Your task to perform on an android device: Go to Wikipedia Image 0: 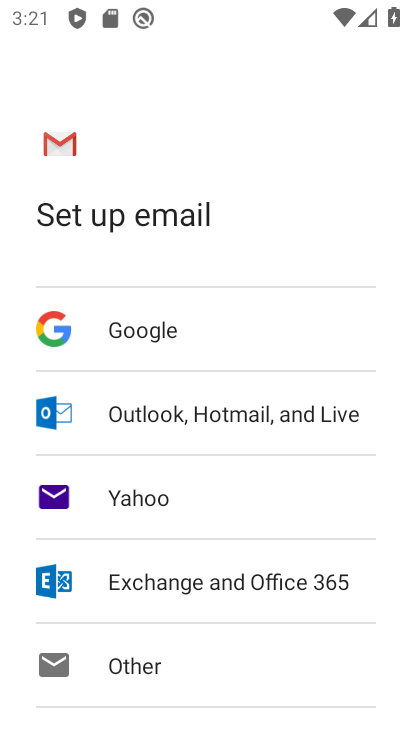
Step 0: press home button
Your task to perform on an android device: Go to Wikipedia Image 1: 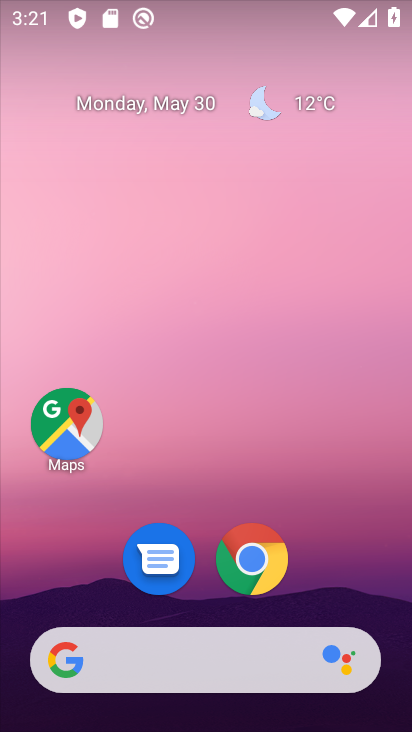
Step 1: click (257, 557)
Your task to perform on an android device: Go to Wikipedia Image 2: 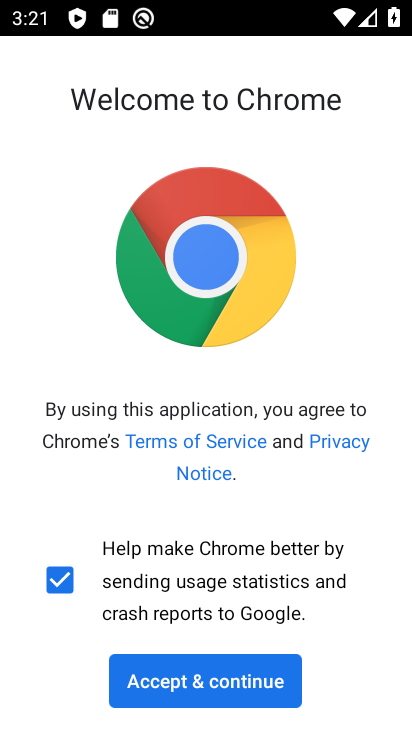
Step 2: click (188, 687)
Your task to perform on an android device: Go to Wikipedia Image 3: 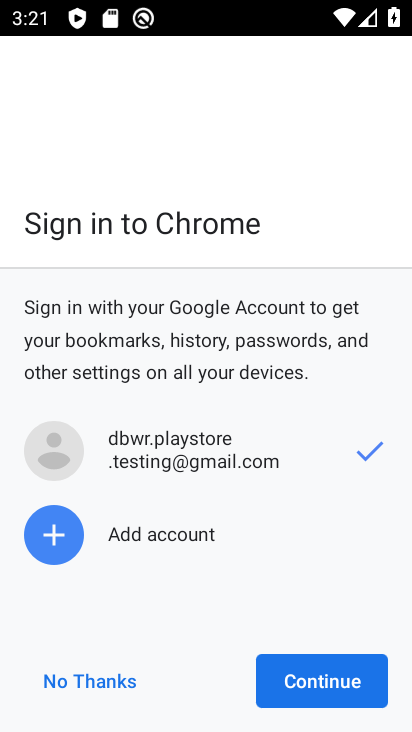
Step 3: click (327, 676)
Your task to perform on an android device: Go to Wikipedia Image 4: 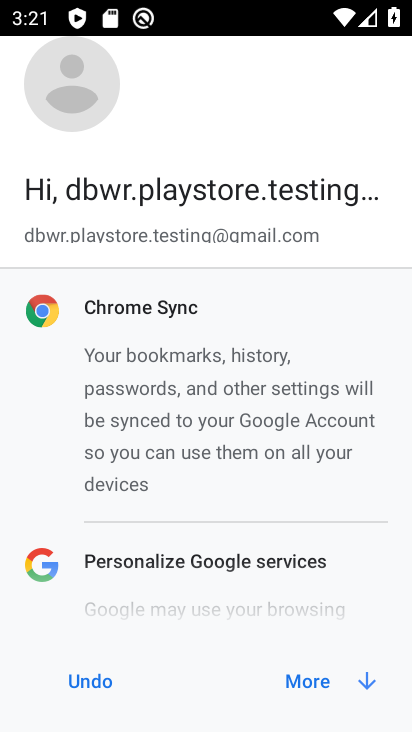
Step 4: click (327, 676)
Your task to perform on an android device: Go to Wikipedia Image 5: 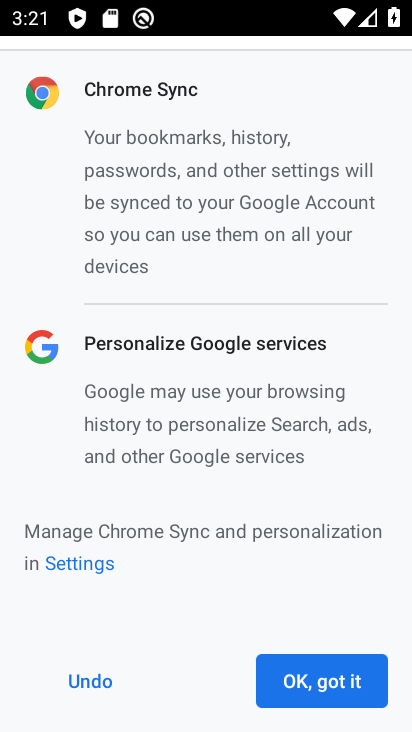
Step 5: click (327, 676)
Your task to perform on an android device: Go to Wikipedia Image 6: 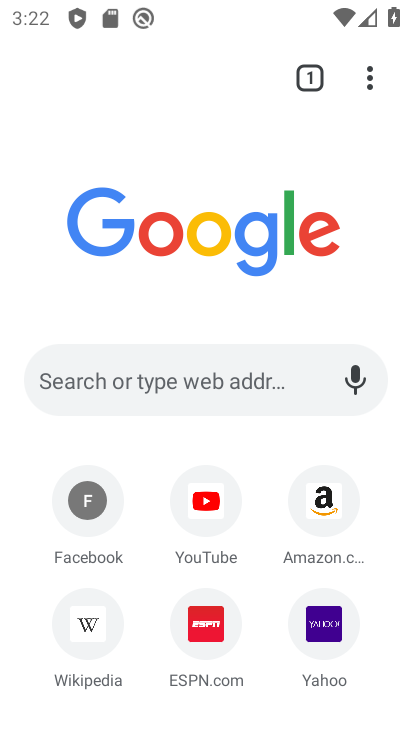
Step 6: click (91, 624)
Your task to perform on an android device: Go to Wikipedia Image 7: 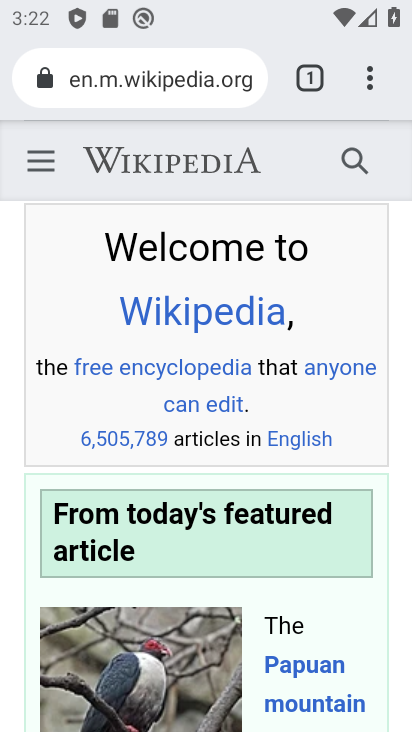
Step 7: task complete